Your task to perform on an android device: show emergency info Image 0: 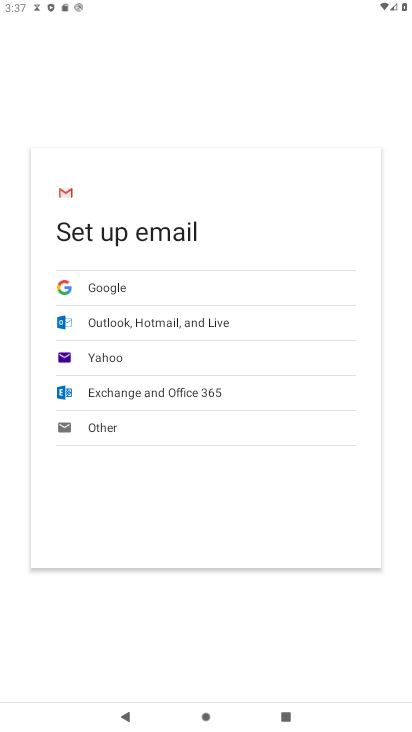
Step 0: press home button
Your task to perform on an android device: show emergency info Image 1: 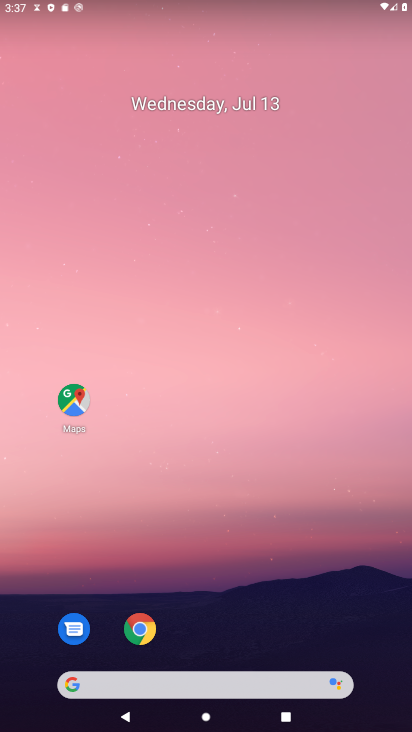
Step 1: drag from (289, 595) to (408, 157)
Your task to perform on an android device: show emergency info Image 2: 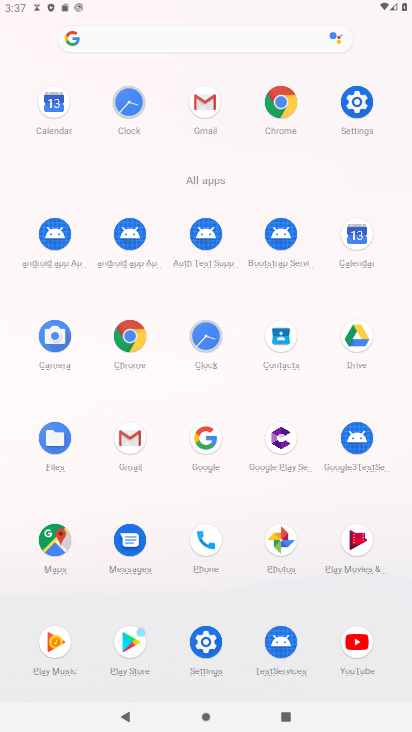
Step 2: click (362, 98)
Your task to perform on an android device: show emergency info Image 3: 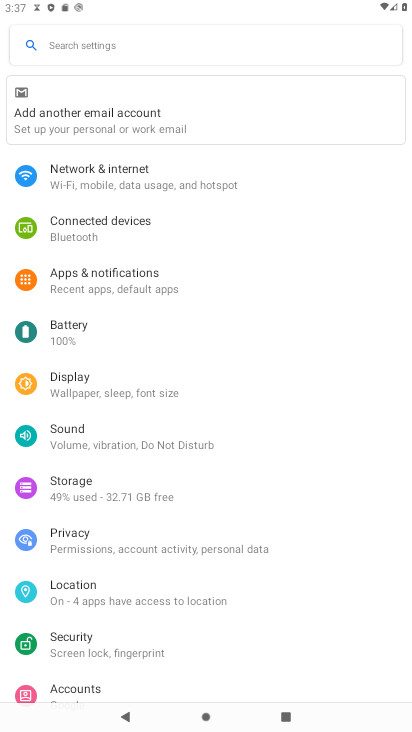
Step 3: drag from (223, 625) to (301, 160)
Your task to perform on an android device: show emergency info Image 4: 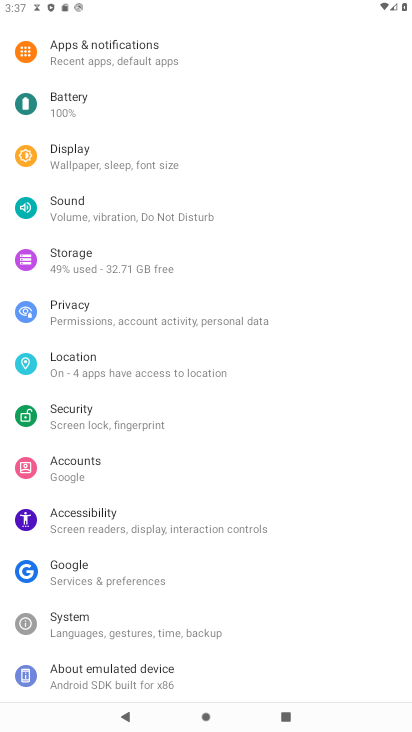
Step 4: click (114, 677)
Your task to perform on an android device: show emergency info Image 5: 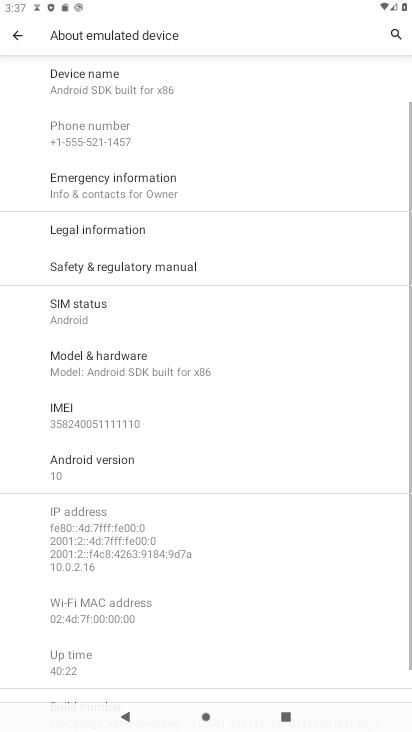
Step 5: click (94, 181)
Your task to perform on an android device: show emergency info Image 6: 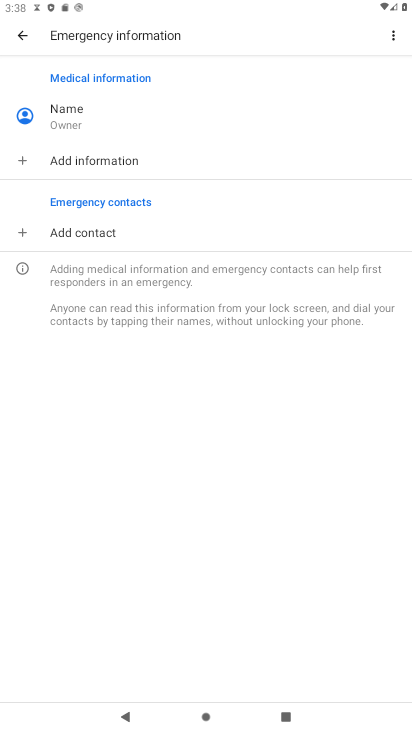
Step 6: task complete